Your task to perform on an android device: check google app version Image 0: 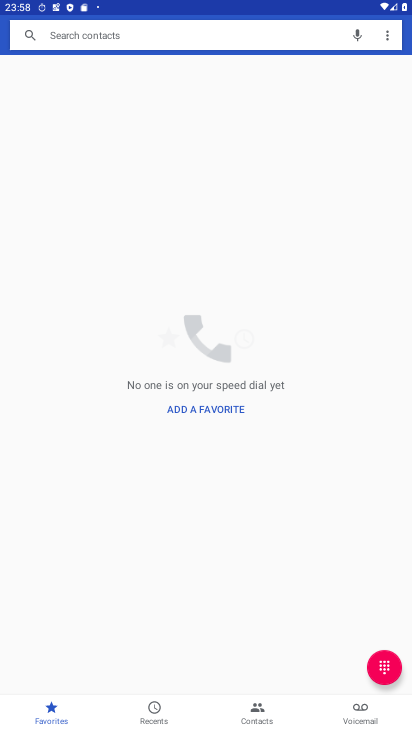
Step 0: press home button
Your task to perform on an android device: check google app version Image 1: 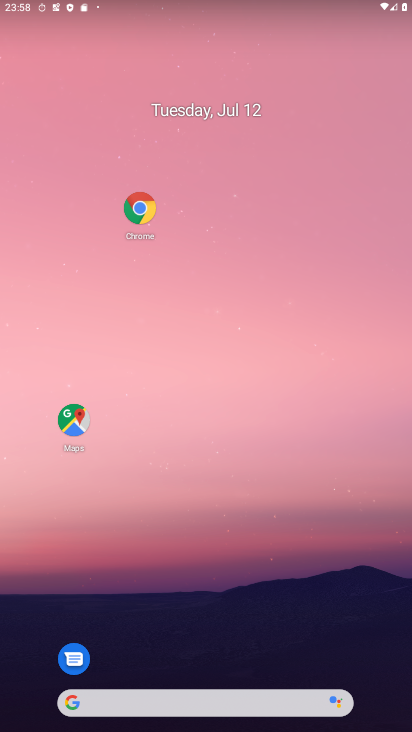
Step 1: drag from (236, 681) to (310, 128)
Your task to perform on an android device: check google app version Image 2: 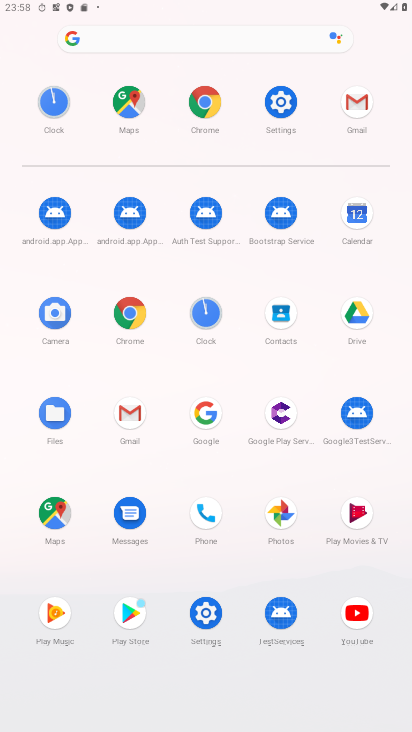
Step 2: click (208, 418)
Your task to perform on an android device: check google app version Image 3: 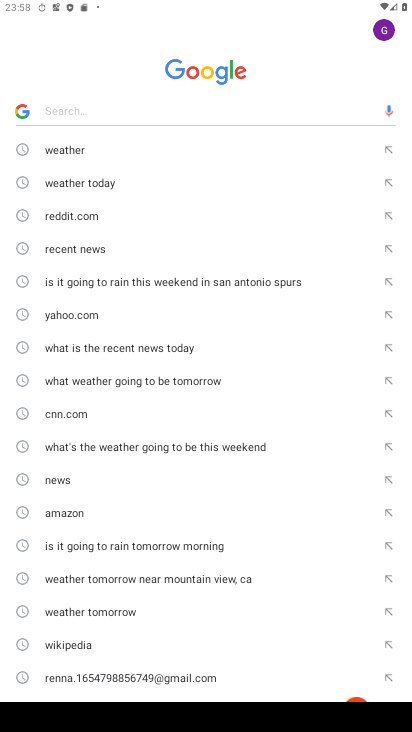
Step 3: click (386, 29)
Your task to perform on an android device: check google app version Image 4: 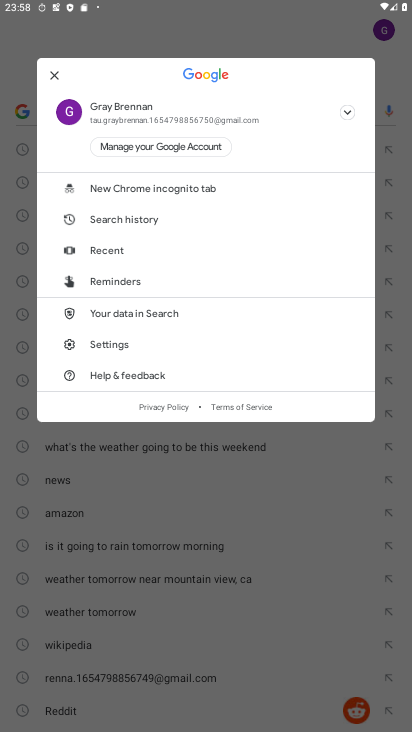
Step 4: click (148, 376)
Your task to perform on an android device: check google app version Image 5: 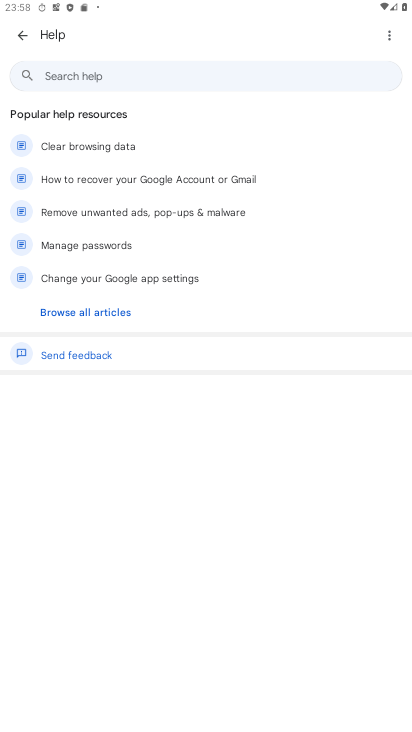
Step 5: click (393, 32)
Your task to perform on an android device: check google app version Image 6: 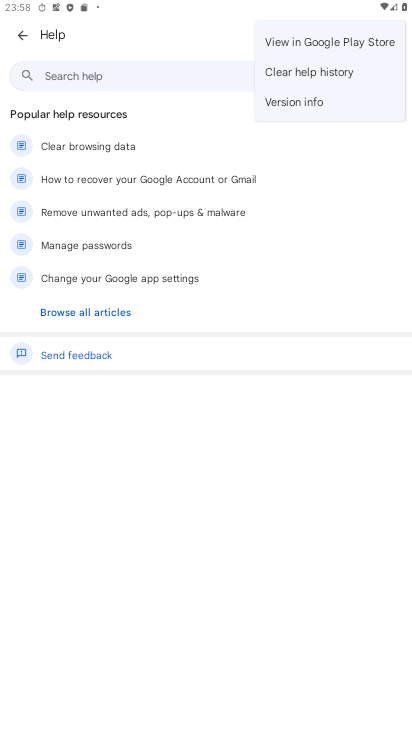
Step 6: click (329, 99)
Your task to perform on an android device: check google app version Image 7: 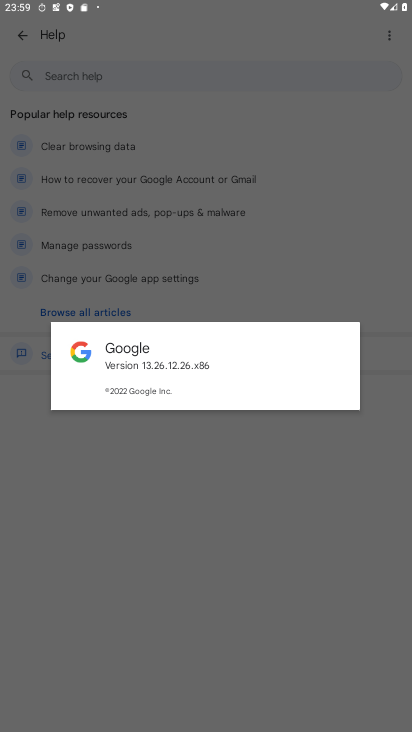
Step 7: task complete